Your task to perform on an android device: change notifications settings Image 0: 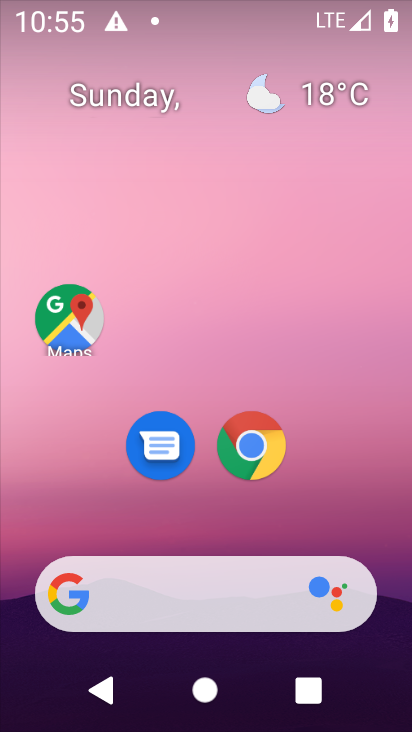
Step 0: drag from (174, 589) to (206, 83)
Your task to perform on an android device: change notifications settings Image 1: 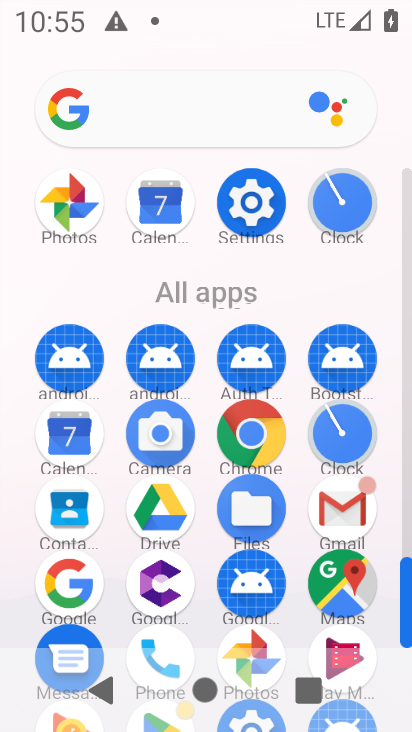
Step 1: click (233, 186)
Your task to perform on an android device: change notifications settings Image 2: 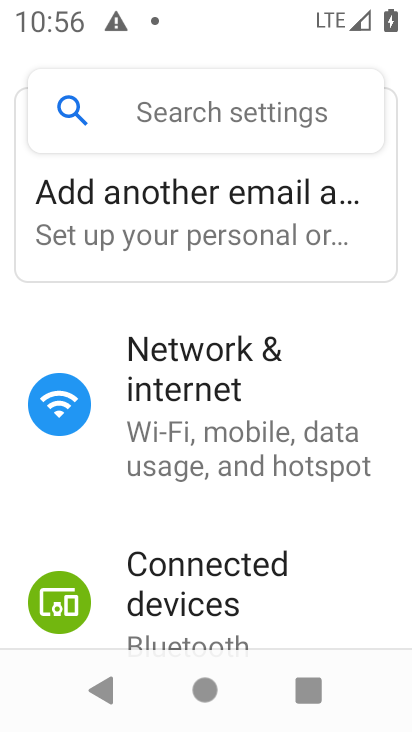
Step 2: drag from (284, 531) to (291, 199)
Your task to perform on an android device: change notifications settings Image 3: 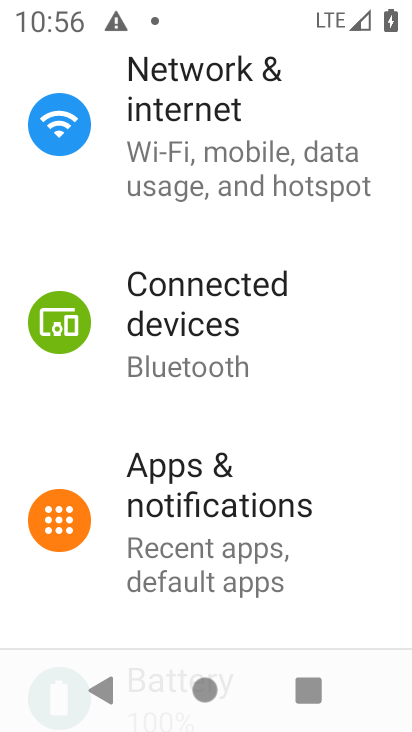
Step 3: drag from (225, 397) to (161, 7)
Your task to perform on an android device: change notifications settings Image 4: 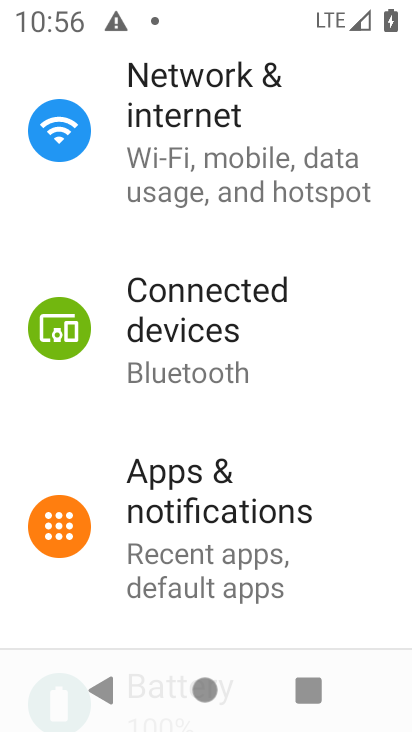
Step 4: drag from (275, 541) to (304, 147)
Your task to perform on an android device: change notifications settings Image 5: 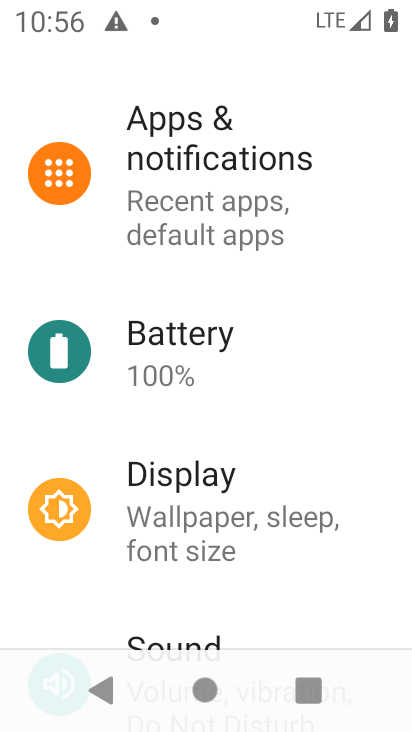
Step 5: click (193, 632)
Your task to perform on an android device: change notifications settings Image 6: 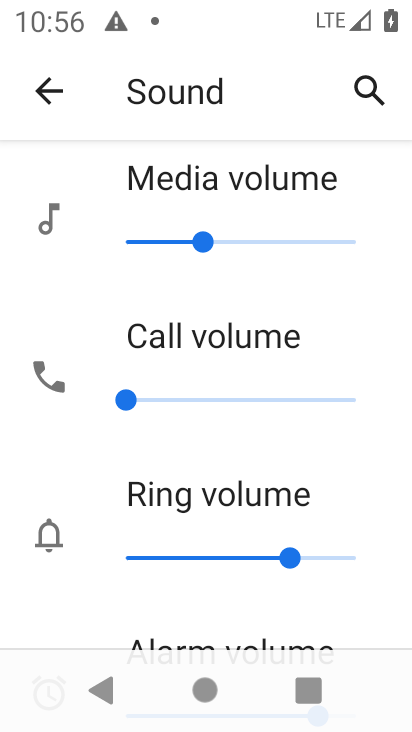
Step 6: click (343, 403)
Your task to perform on an android device: change notifications settings Image 7: 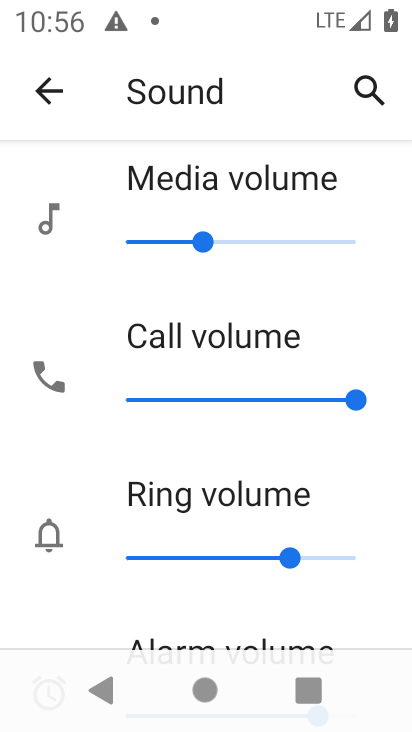
Step 7: drag from (324, 491) to (217, 5)
Your task to perform on an android device: change notifications settings Image 8: 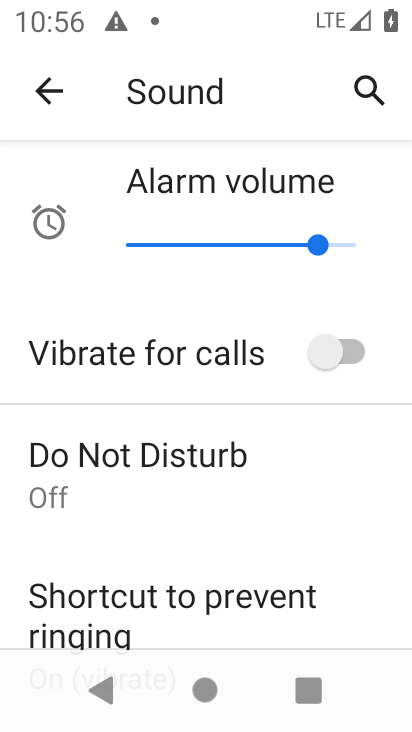
Step 8: click (330, 386)
Your task to perform on an android device: change notifications settings Image 9: 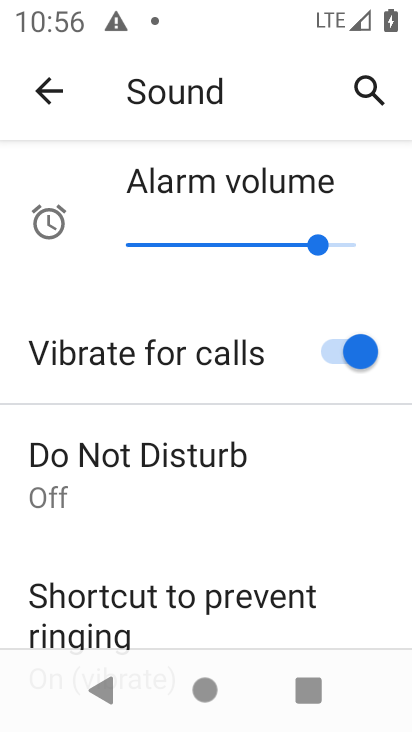
Step 9: task complete